Your task to perform on an android device: manage bookmarks in the chrome app Image 0: 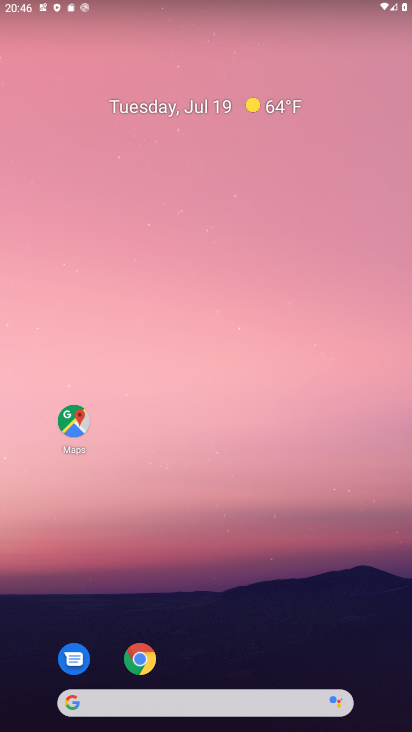
Step 0: click (141, 656)
Your task to perform on an android device: manage bookmarks in the chrome app Image 1: 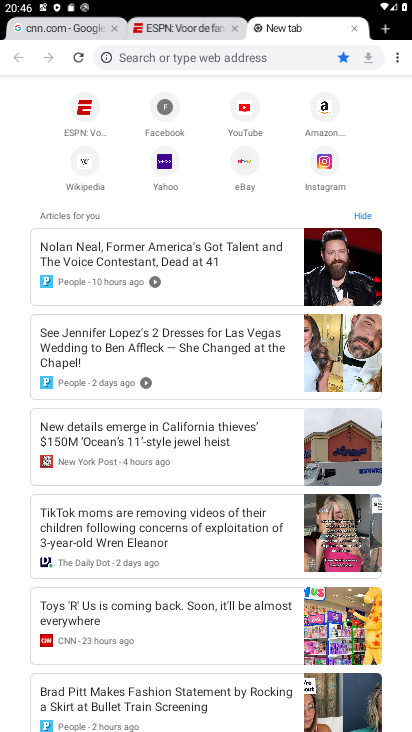
Step 1: click (392, 52)
Your task to perform on an android device: manage bookmarks in the chrome app Image 2: 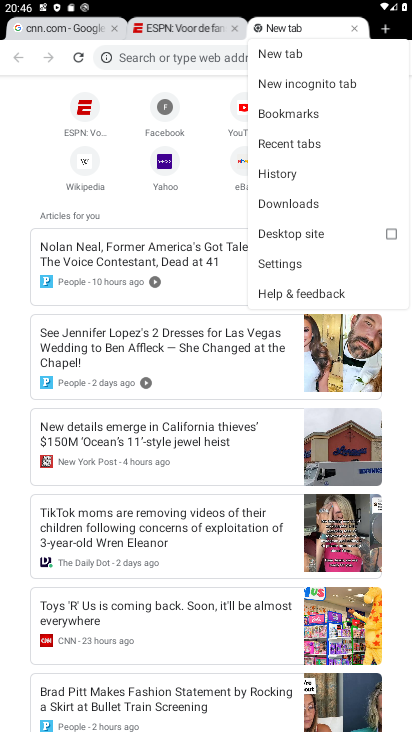
Step 2: click (306, 106)
Your task to perform on an android device: manage bookmarks in the chrome app Image 3: 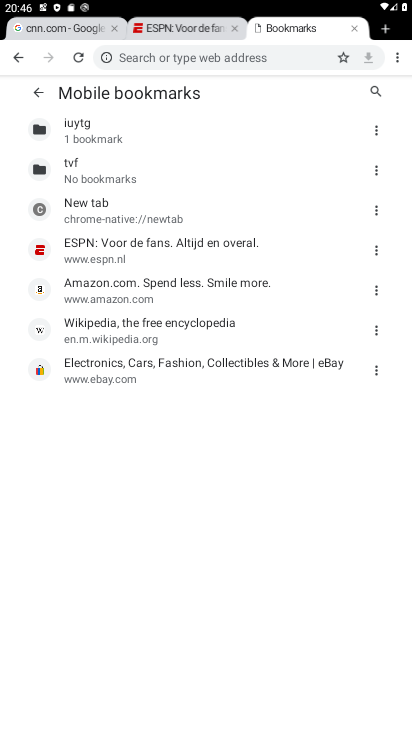
Step 3: click (383, 177)
Your task to perform on an android device: manage bookmarks in the chrome app Image 4: 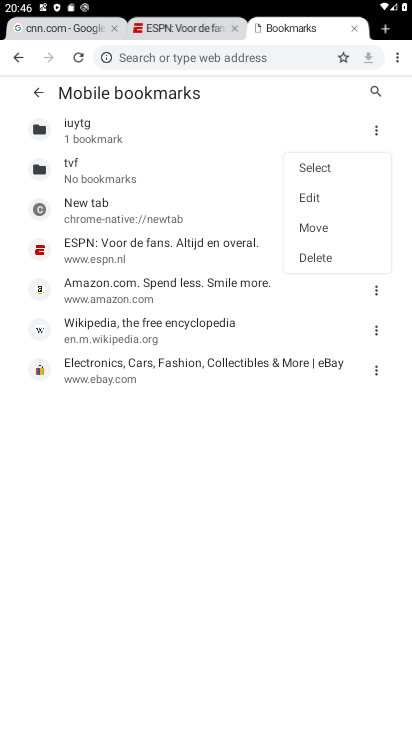
Step 4: click (334, 249)
Your task to perform on an android device: manage bookmarks in the chrome app Image 5: 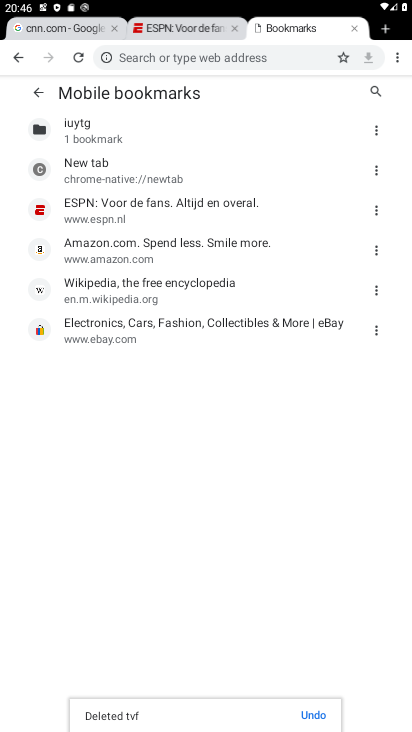
Step 5: task complete